Your task to perform on an android device: Search for seafood restaurants on Google Maps Image 0: 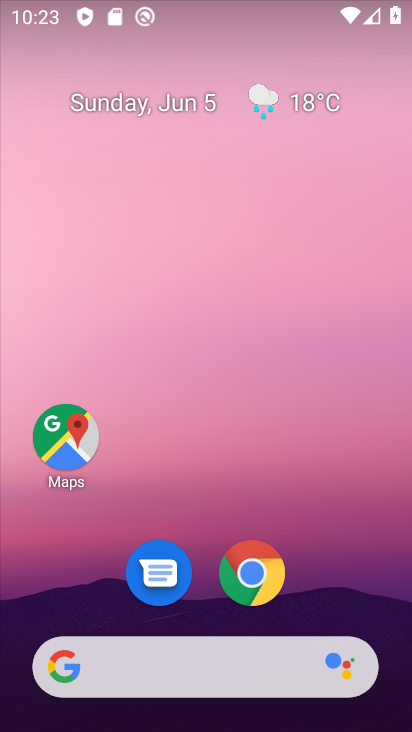
Step 0: click (59, 436)
Your task to perform on an android device: Search for seafood restaurants on Google Maps Image 1: 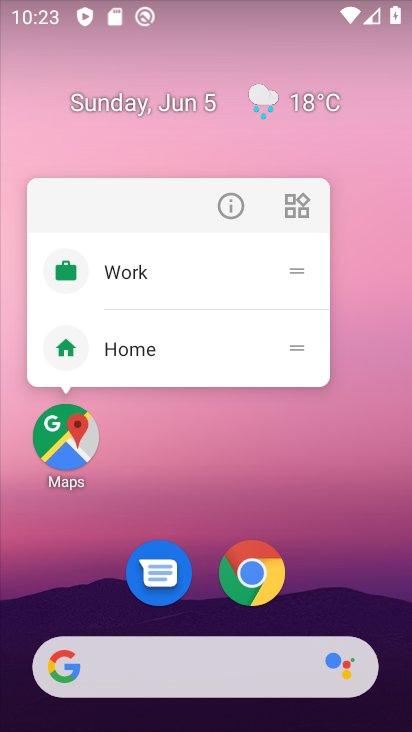
Step 1: click (59, 435)
Your task to perform on an android device: Search for seafood restaurants on Google Maps Image 2: 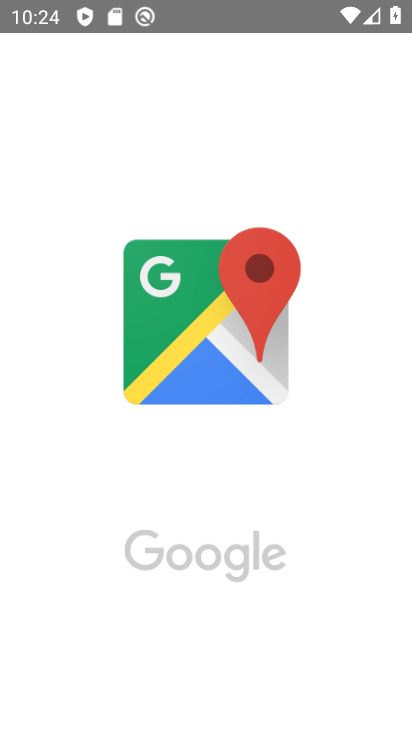
Step 2: click (59, 435)
Your task to perform on an android device: Search for seafood restaurants on Google Maps Image 3: 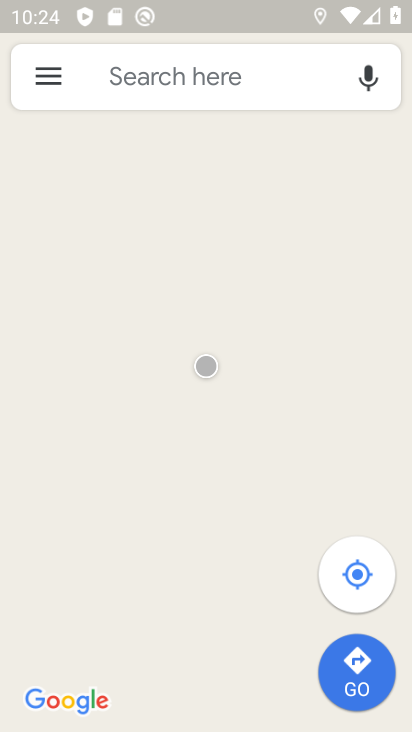
Step 3: click (175, 84)
Your task to perform on an android device: Search for seafood restaurants on Google Maps Image 4: 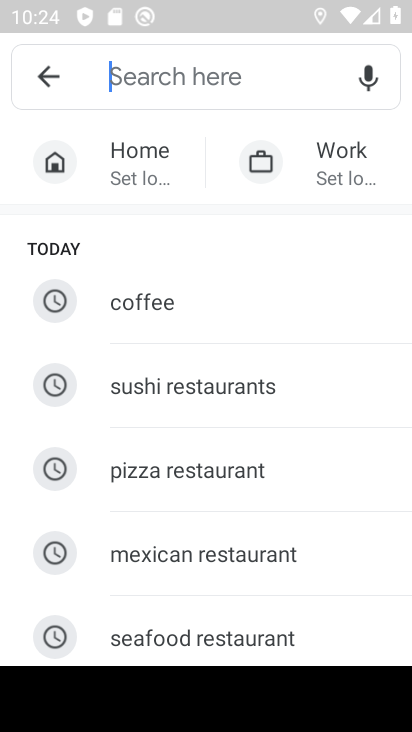
Step 4: type "seafood restaurants"
Your task to perform on an android device: Search for seafood restaurants on Google Maps Image 5: 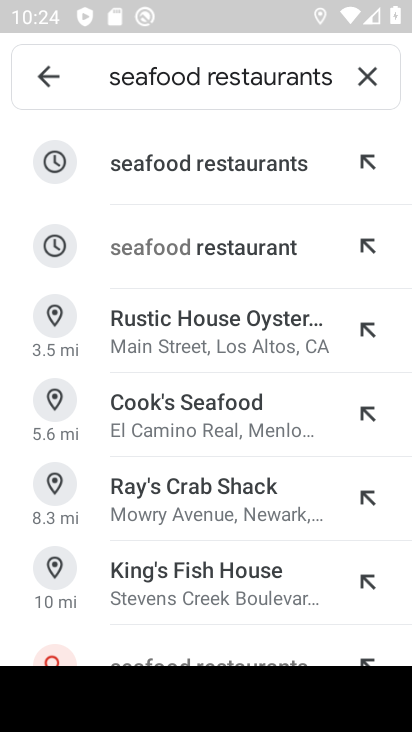
Step 5: click (223, 190)
Your task to perform on an android device: Search for seafood restaurants on Google Maps Image 6: 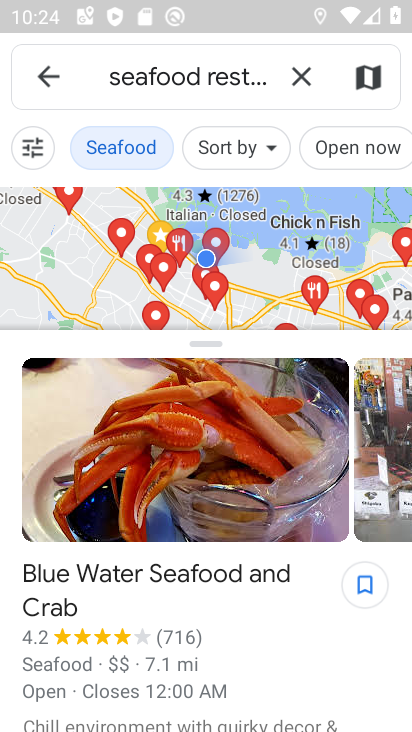
Step 6: task complete